Your task to perform on an android device: What's the weather today? Image 0: 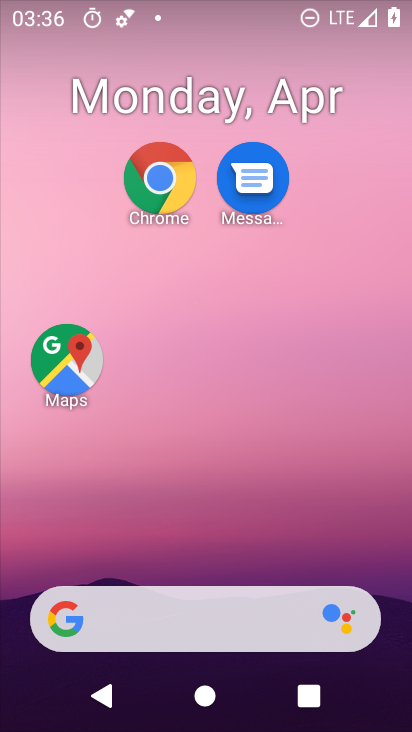
Step 0: drag from (272, 564) to (377, 7)
Your task to perform on an android device: What's the weather today? Image 1: 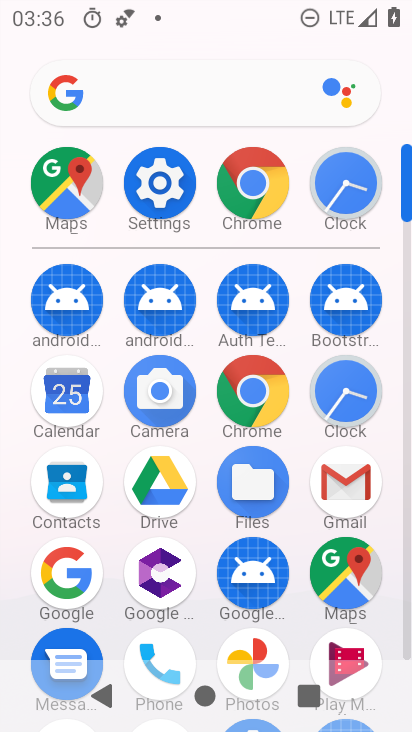
Step 1: drag from (289, 613) to (288, 167)
Your task to perform on an android device: What's the weather today? Image 2: 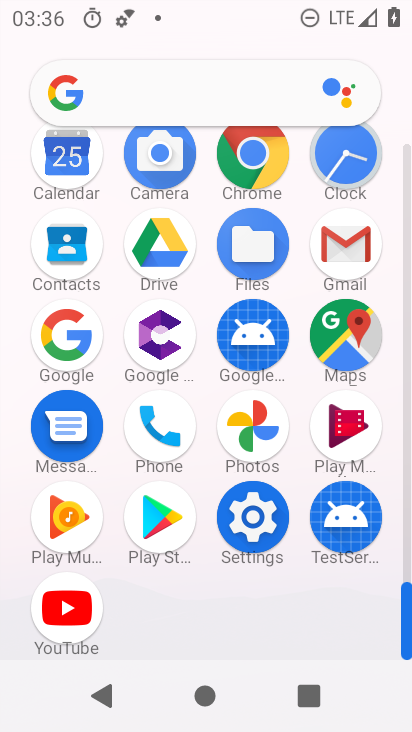
Step 2: drag from (290, 181) to (277, 427)
Your task to perform on an android device: What's the weather today? Image 3: 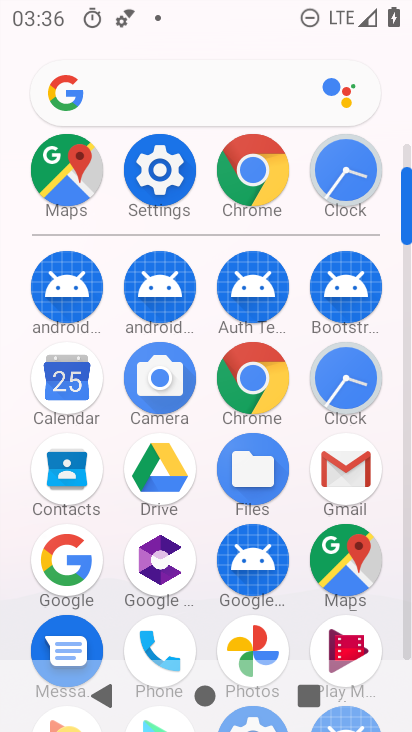
Step 3: click (254, 396)
Your task to perform on an android device: What's the weather today? Image 4: 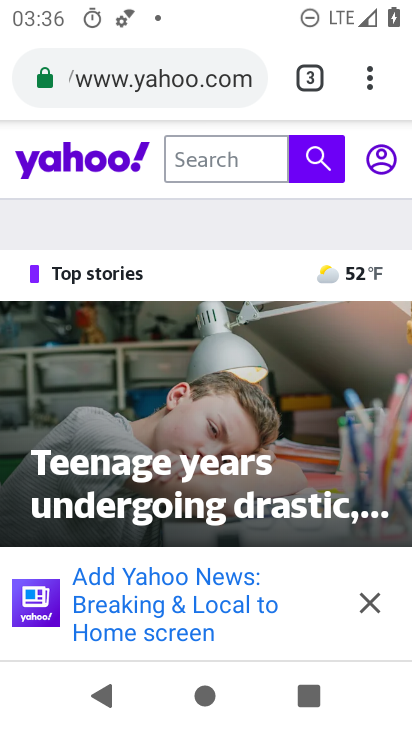
Step 4: click (236, 68)
Your task to perform on an android device: What's the weather today? Image 5: 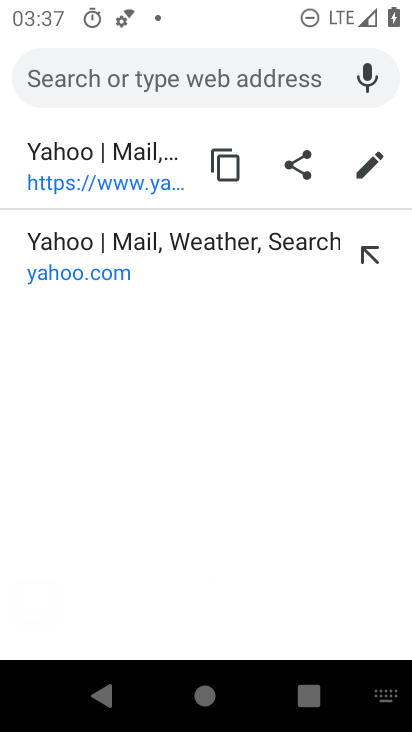
Step 5: type "weather today"
Your task to perform on an android device: What's the weather today? Image 6: 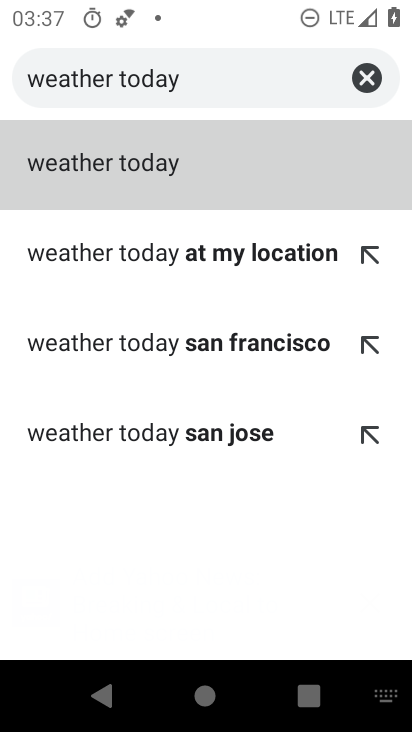
Step 6: click (153, 156)
Your task to perform on an android device: What's the weather today? Image 7: 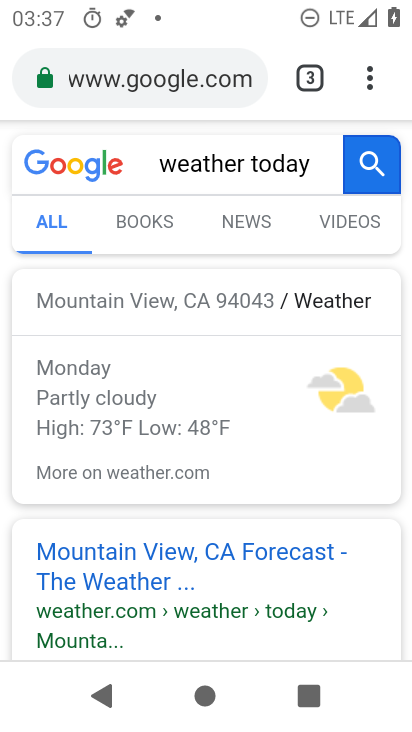
Step 7: task complete